Your task to perform on an android device: delete browsing data in the chrome app Image 0: 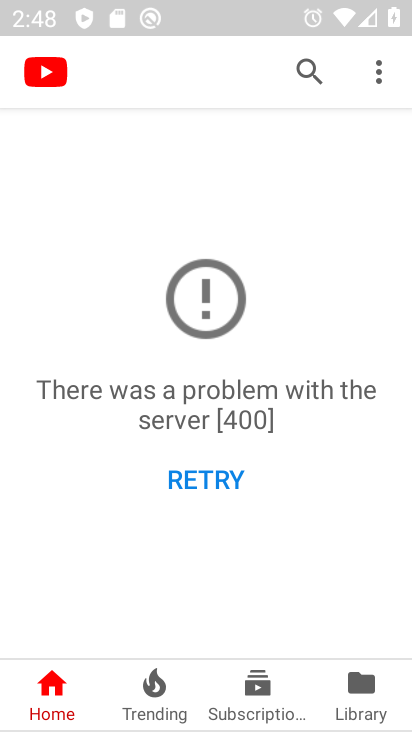
Step 0: press home button
Your task to perform on an android device: delete browsing data in the chrome app Image 1: 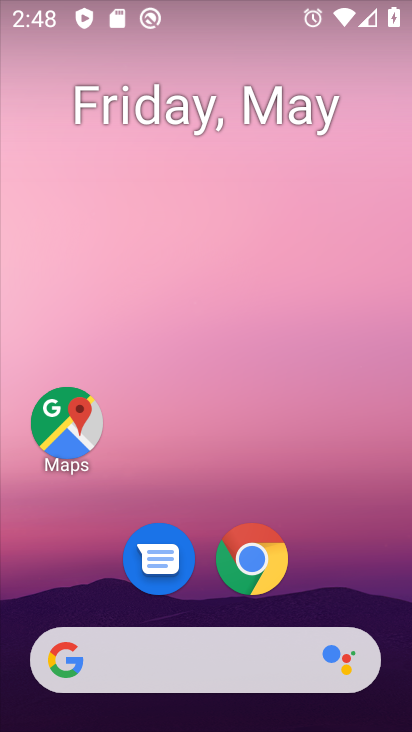
Step 1: drag from (361, 578) to (286, 129)
Your task to perform on an android device: delete browsing data in the chrome app Image 2: 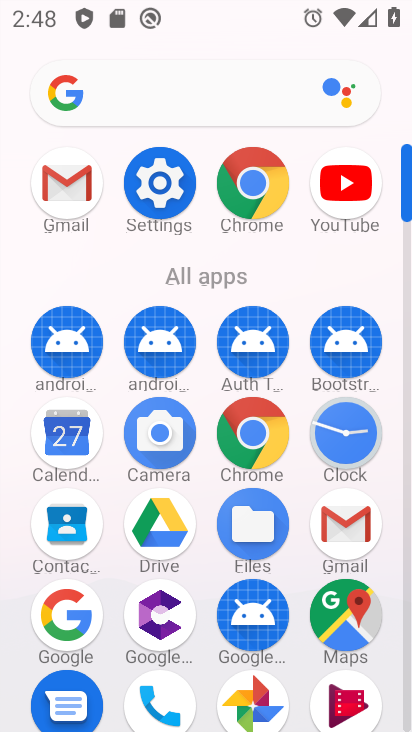
Step 2: click (256, 210)
Your task to perform on an android device: delete browsing data in the chrome app Image 3: 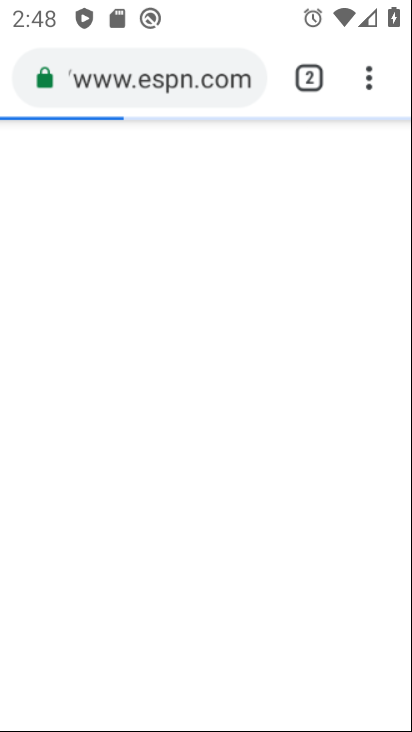
Step 3: click (385, 74)
Your task to perform on an android device: delete browsing data in the chrome app Image 4: 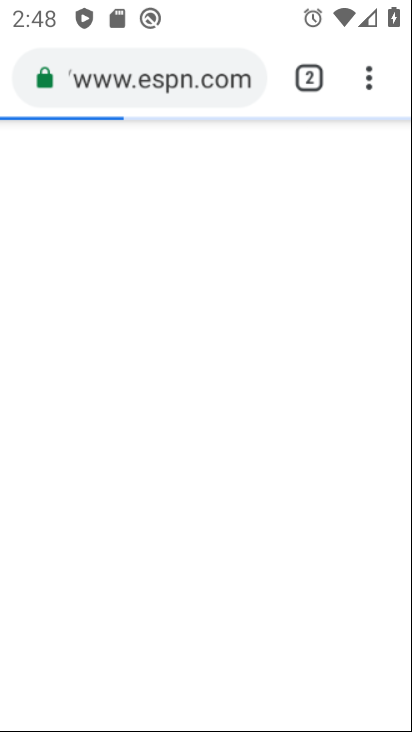
Step 4: click (364, 85)
Your task to perform on an android device: delete browsing data in the chrome app Image 5: 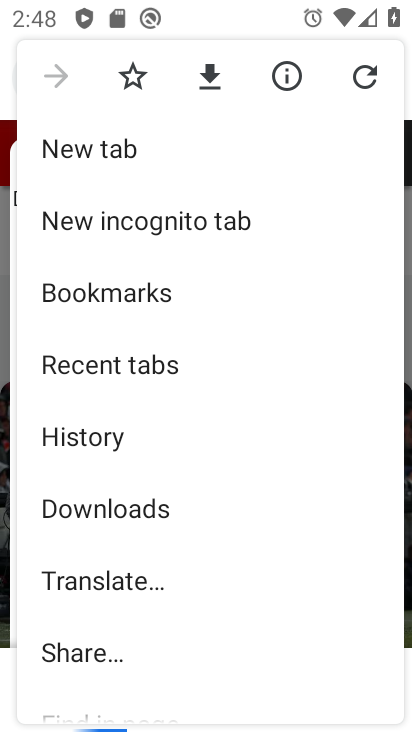
Step 5: drag from (231, 636) to (222, 273)
Your task to perform on an android device: delete browsing data in the chrome app Image 6: 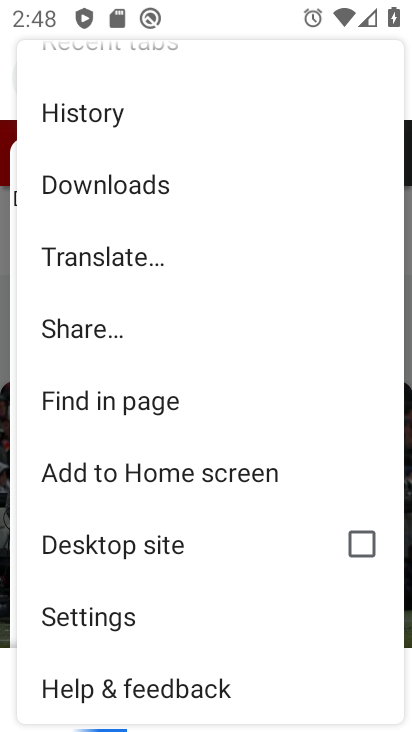
Step 6: click (110, 133)
Your task to perform on an android device: delete browsing data in the chrome app Image 7: 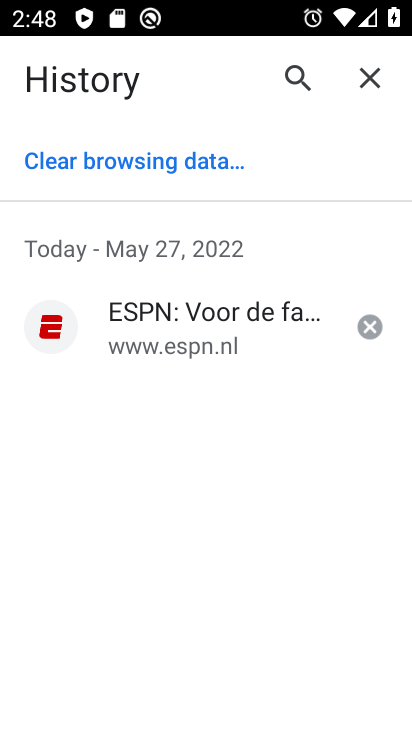
Step 7: click (121, 150)
Your task to perform on an android device: delete browsing data in the chrome app Image 8: 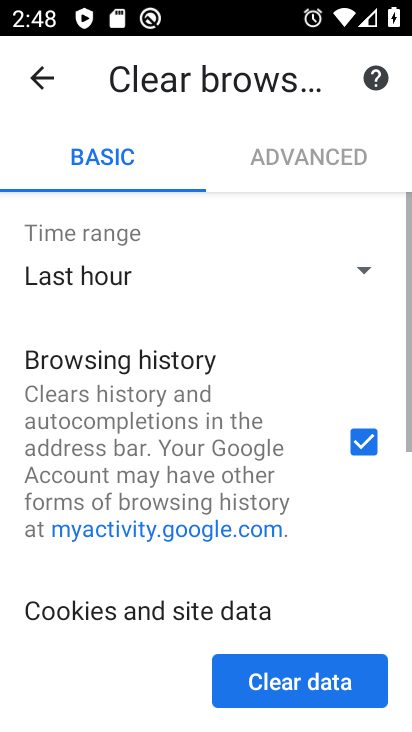
Step 8: click (285, 673)
Your task to perform on an android device: delete browsing data in the chrome app Image 9: 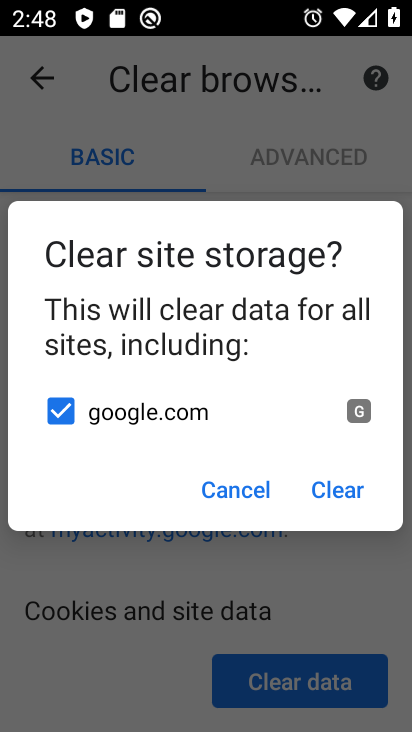
Step 9: click (330, 510)
Your task to perform on an android device: delete browsing data in the chrome app Image 10: 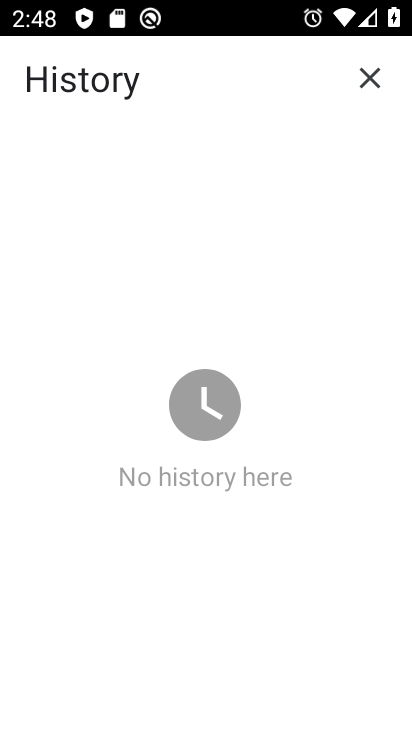
Step 10: task complete